Your task to perform on an android device: Search for vegetarian restaurants on Maps Image 0: 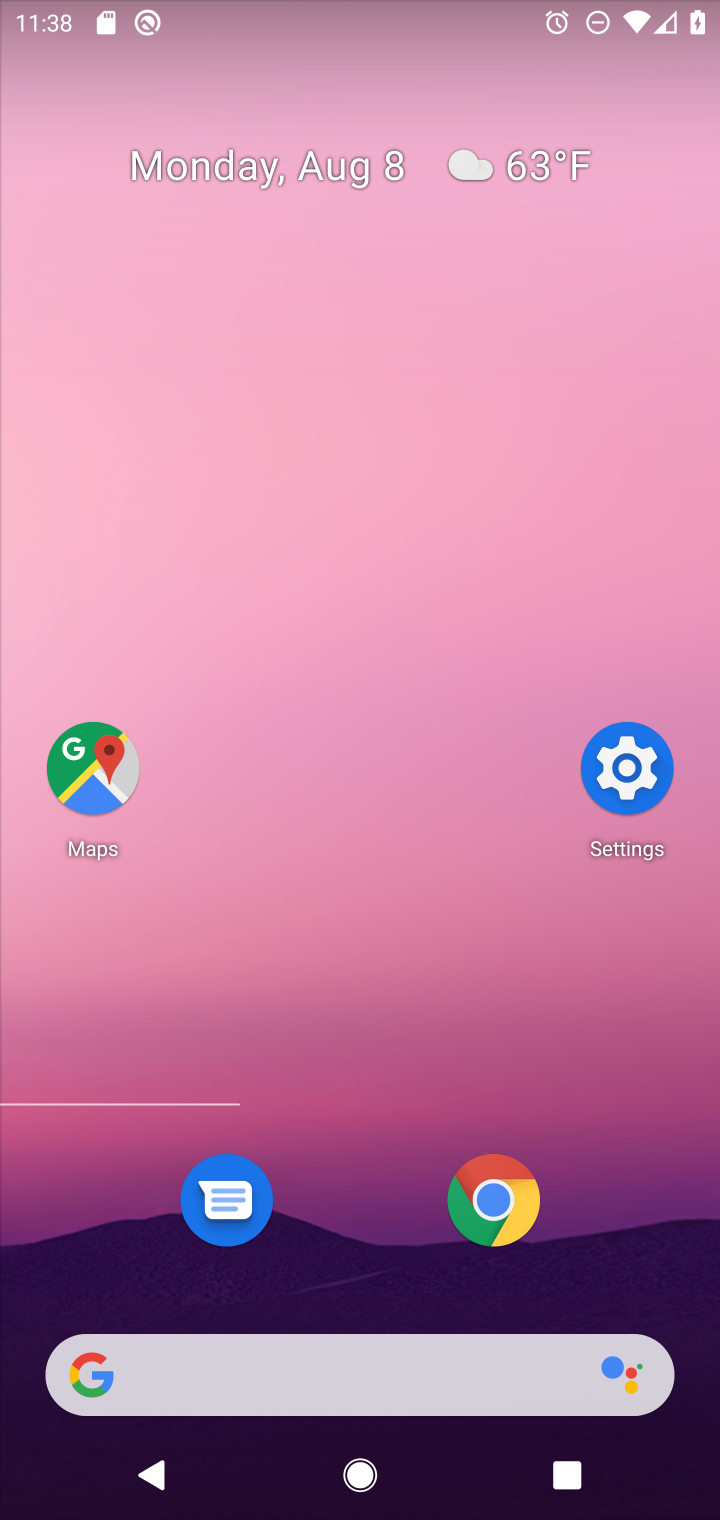
Step 0: press home button
Your task to perform on an android device: Search for vegetarian restaurants on Maps Image 1: 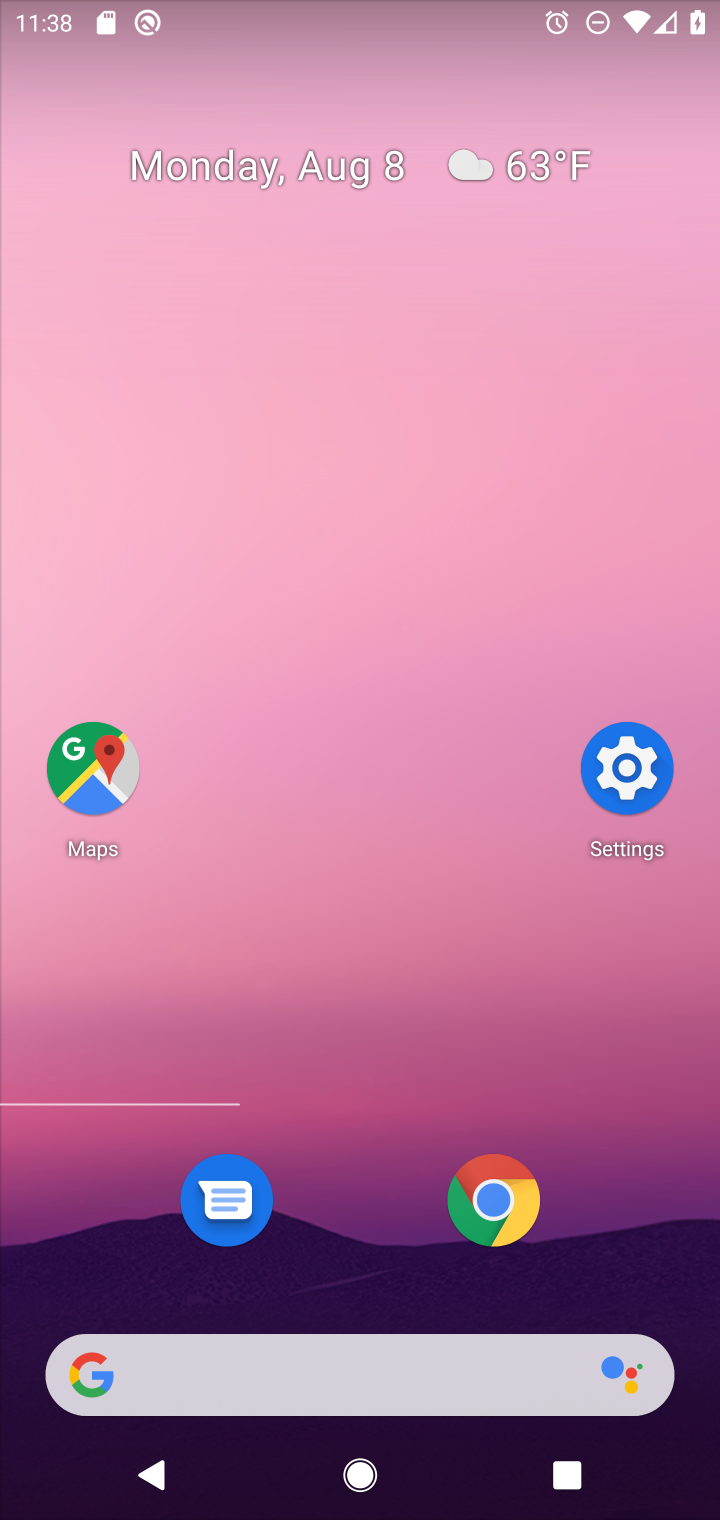
Step 1: click (88, 768)
Your task to perform on an android device: Search for vegetarian restaurants on Maps Image 2: 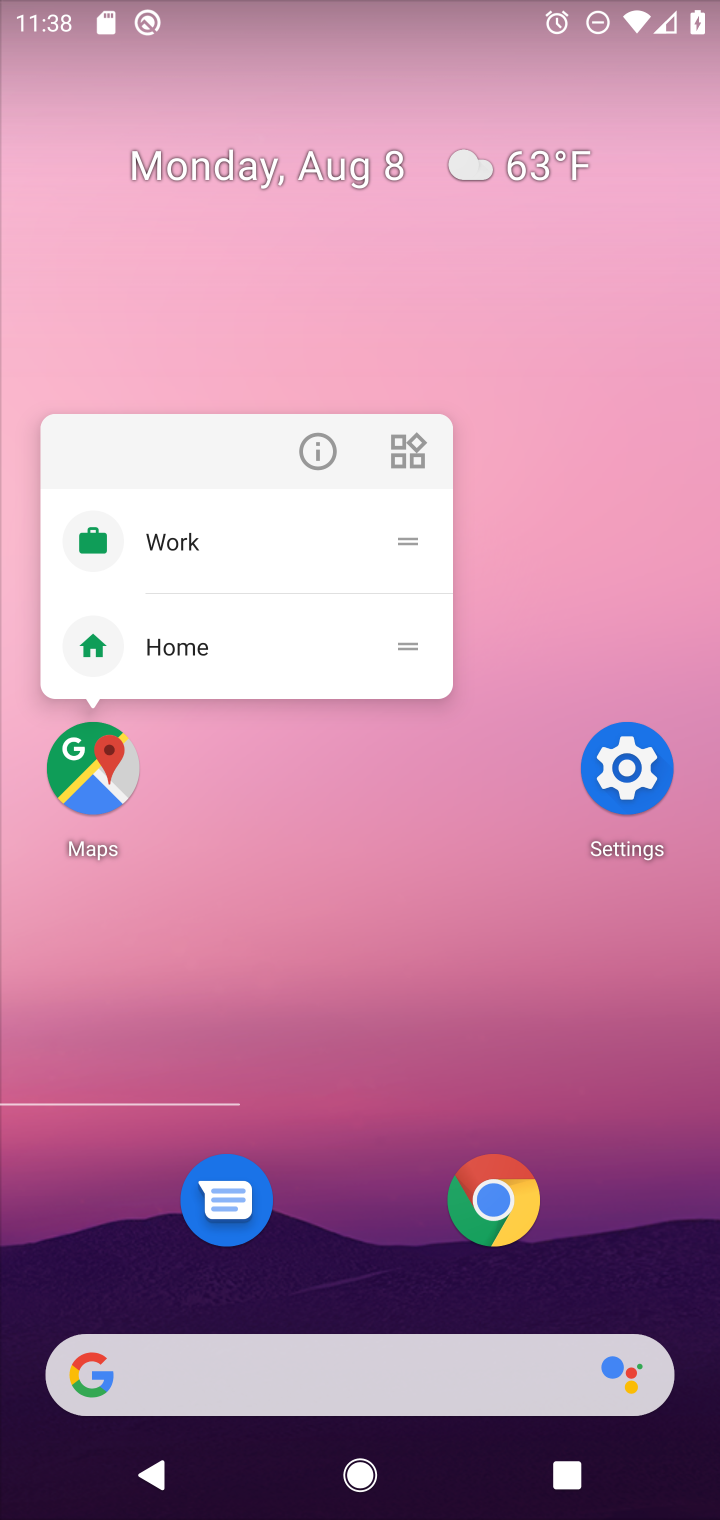
Step 2: click (88, 768)
Your task to perform on an android device: Search for vegetarian restaurants on Maps Image 3: 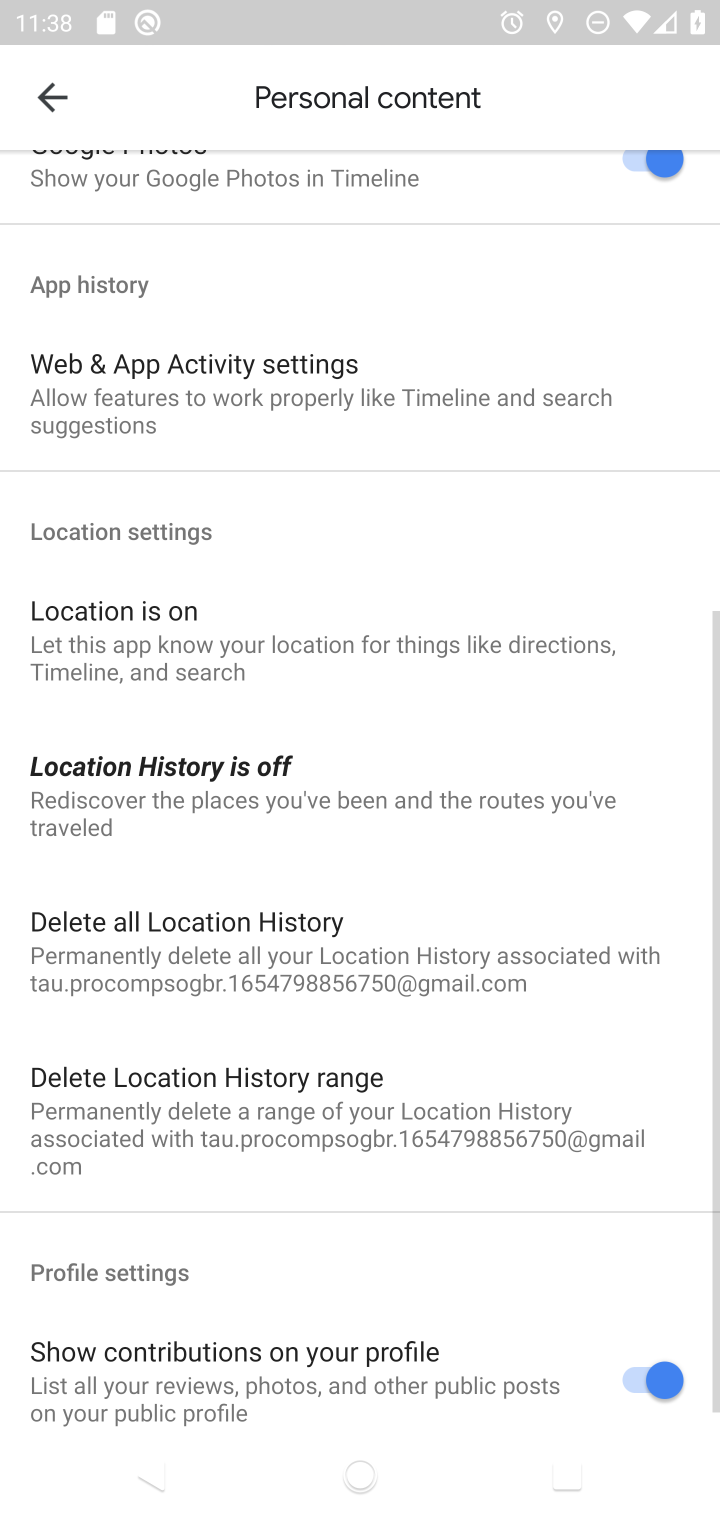
Step 3: click (51, 86)
Your task to perform on an android device: Search for vegetarian restaurants on Maps Image 4: 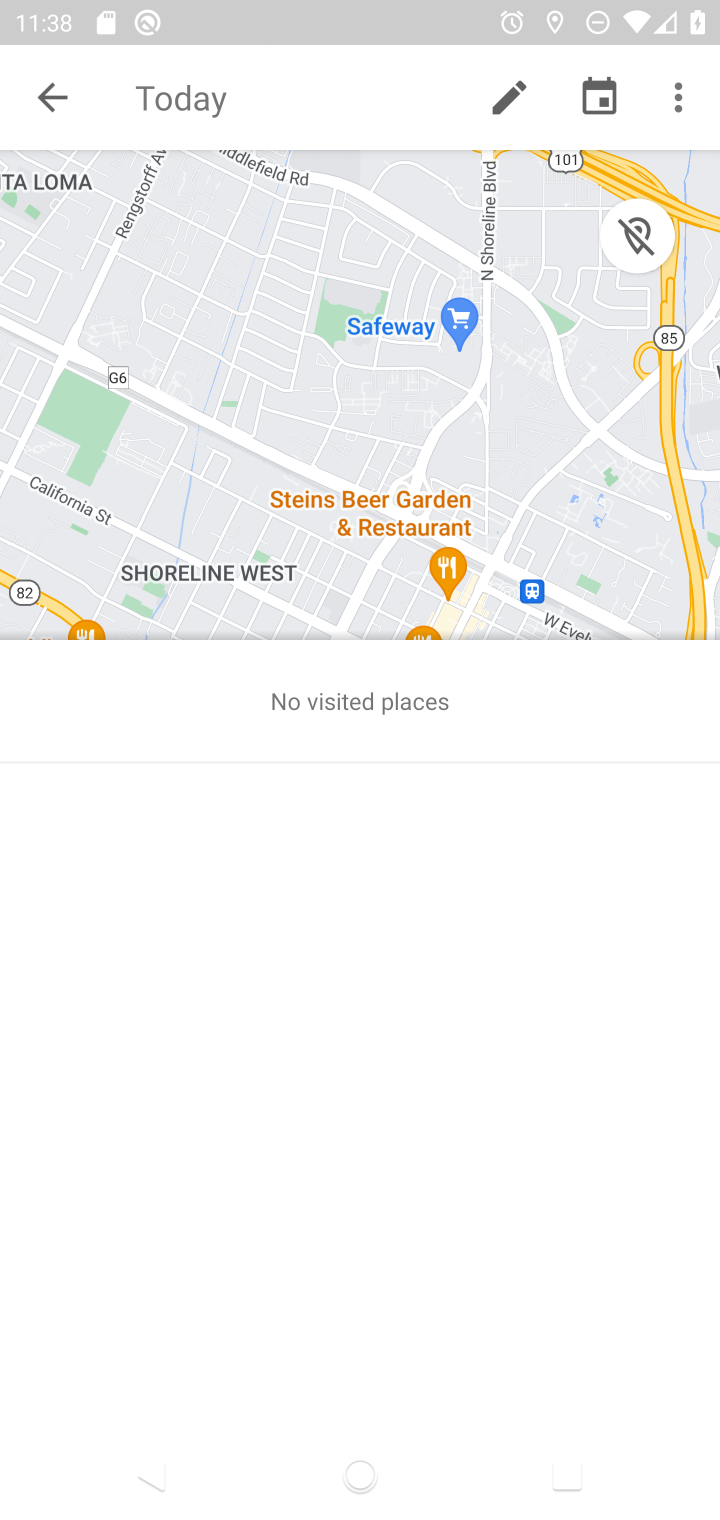
Step 4: click (59, 99)
Your task to perform on an android device: Search for vegetarian restaurants on Maps Image 5: 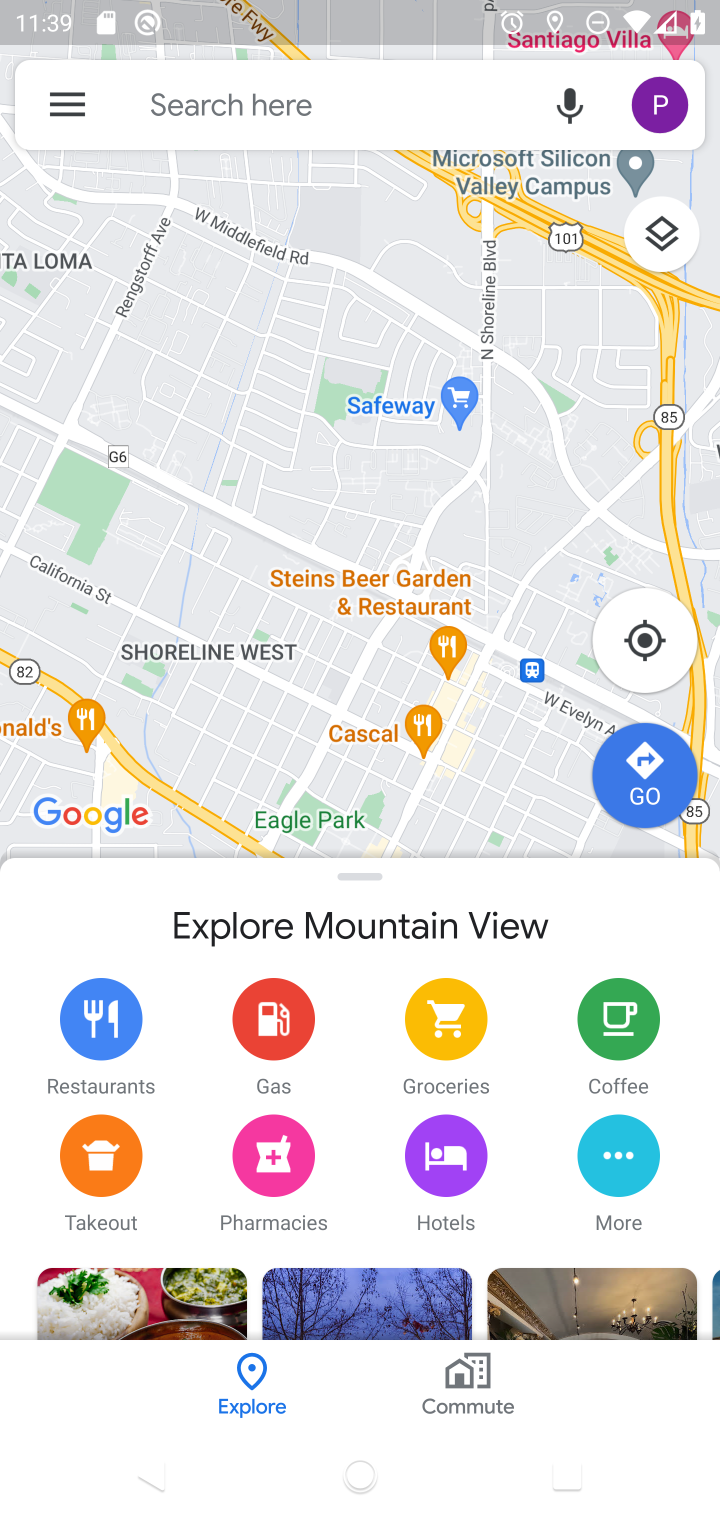
Step 5: click (202, 107)
Your task to perform on an android device: Search for vegetarian restaurants on Maps Image 6: 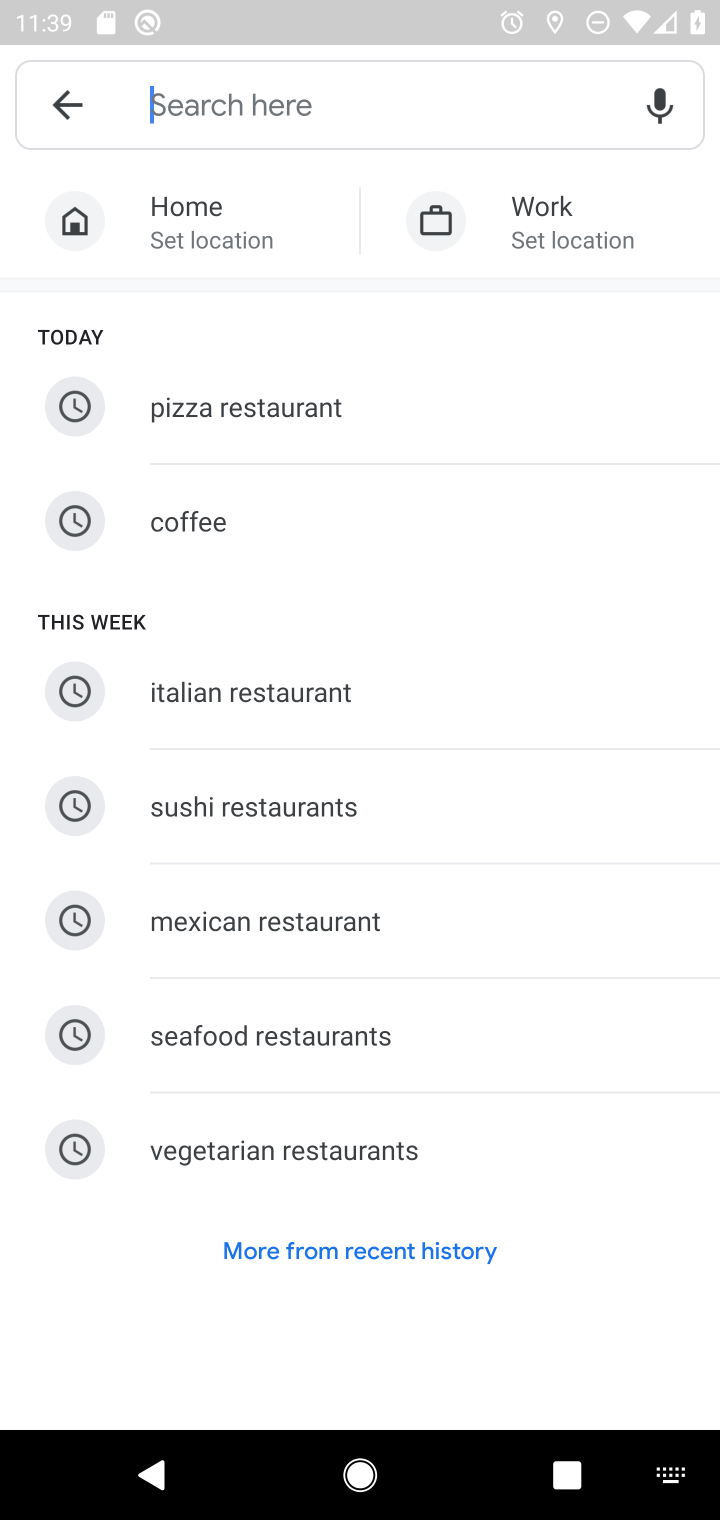
Step 6: click (259, 1149)
Your task to perform on an android device: Search for vegetarian restaurants on Maps Image 7: 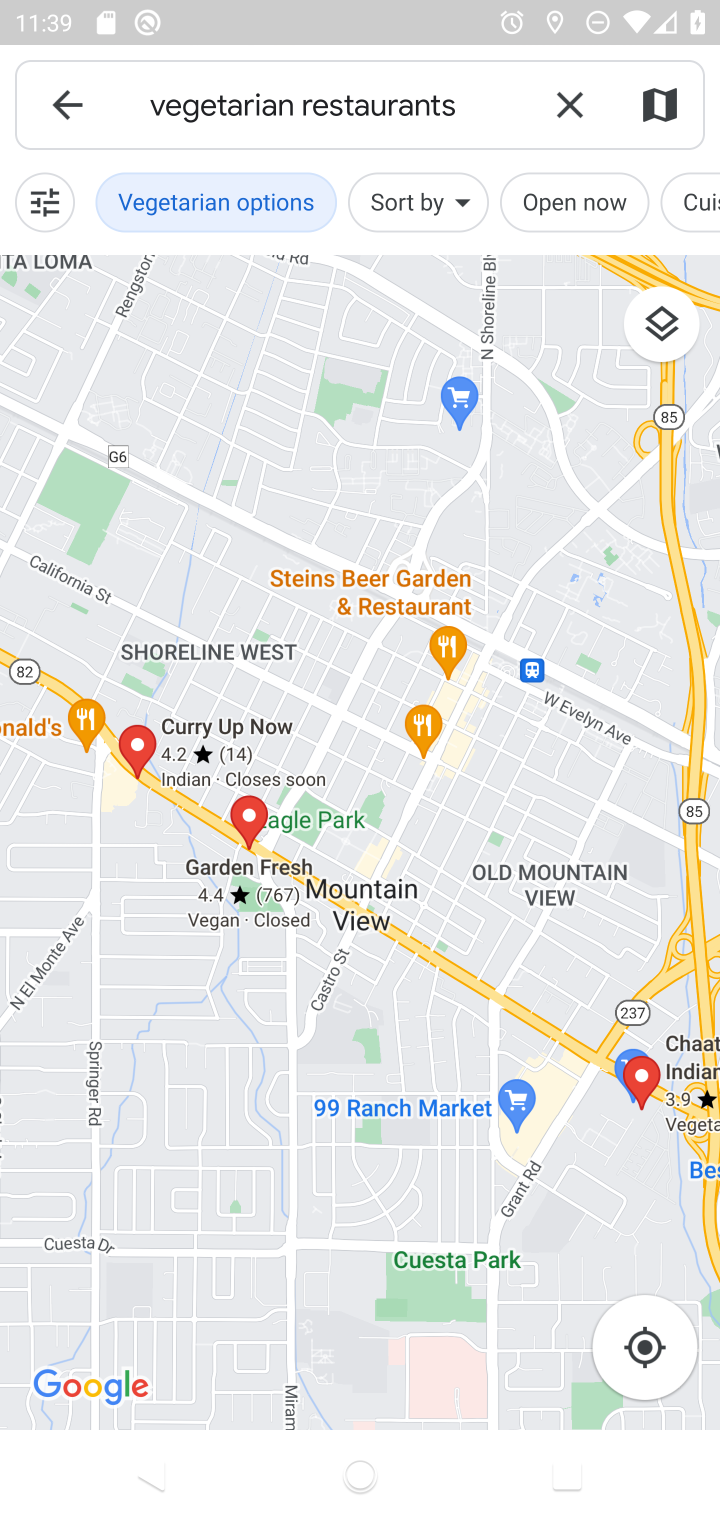
Step 7: task complete